Your task to perform on an android device: open app "Adobe Acrobat Reader" (install if not already installed) and enter user name: "nondescriptly@inbox.com" and password: "negating" Image 0: 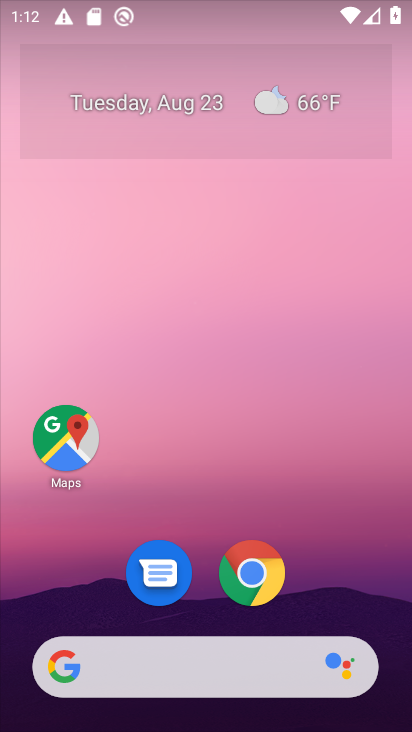
Step 0: drag from (198, 498) to (266, 55)
Your task to perform on an android device: open app "Adobe Acrobat Reader" (install if not already installed) and enter user name: "nondescriptly@inbox.com" and password: "negating" Image 1: 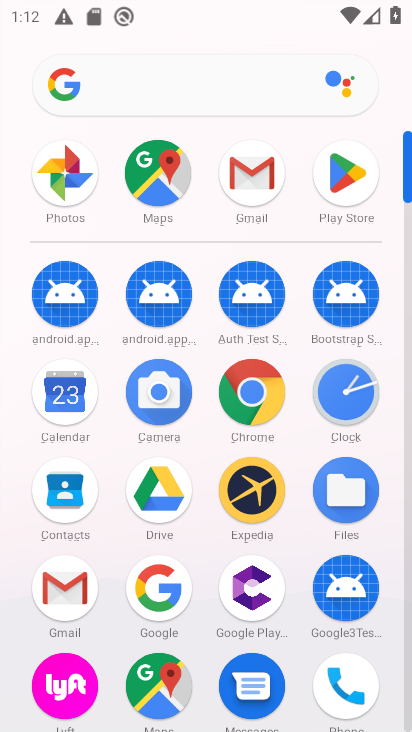
Step 1: click (326, 183)
Your task to perform on an android device: open app "Adobe Acrobat Reader" (install if not already installed) and enter user name: "nondescriptly@inbox.com" and password: "negating" Image 2: 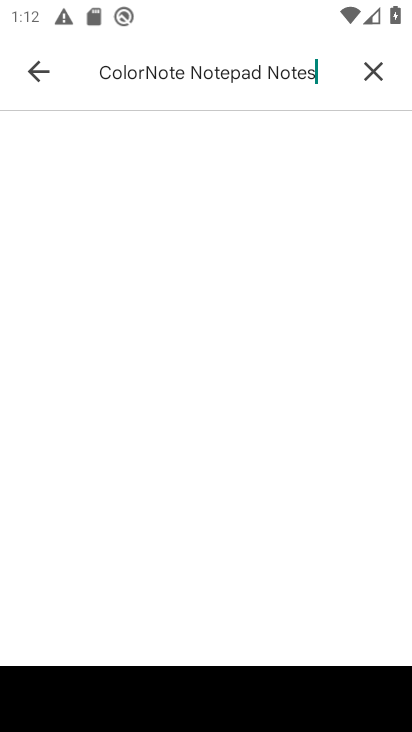
Step 2: click (377, 64)
Your task to perform on an android device: open app "Adobe Acrobat Reader" (install if not already installed) and enter user name: "nondescriptly@inbox.com" and password: "negating" Image 3: 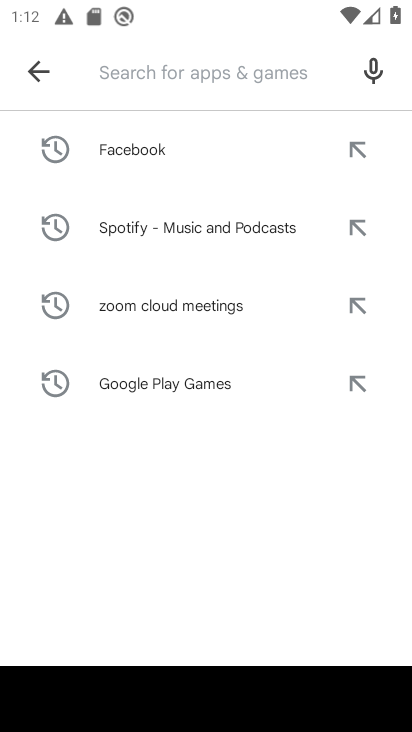
Step 3: type "Adobe Acrobat Reader"
Your task to perform on an android device: open app "Adobe Acrobat Reader" (install if not already installed) and enter user name: "nondescriptly@inbox.com" and password: "negating" Image 4: 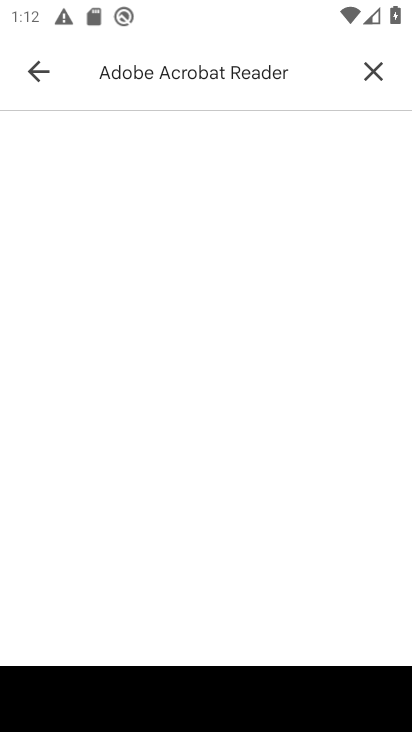
Step 4: task complete